Your task to perform on an android device: Go to sound settings Image 0: 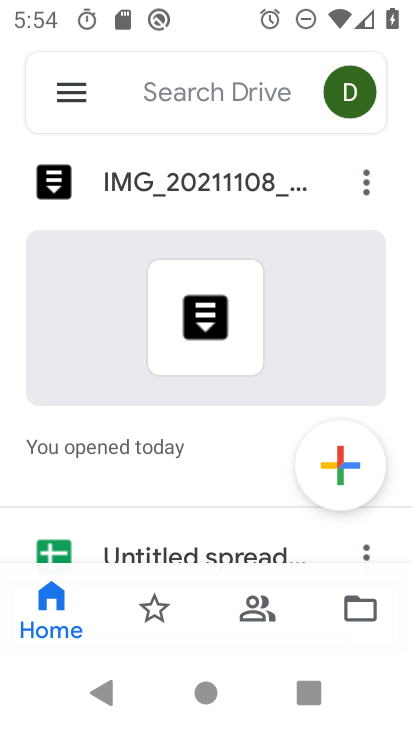
Step 0: type ""
Your task to perform on an android device: Go to sound settings Image 1: 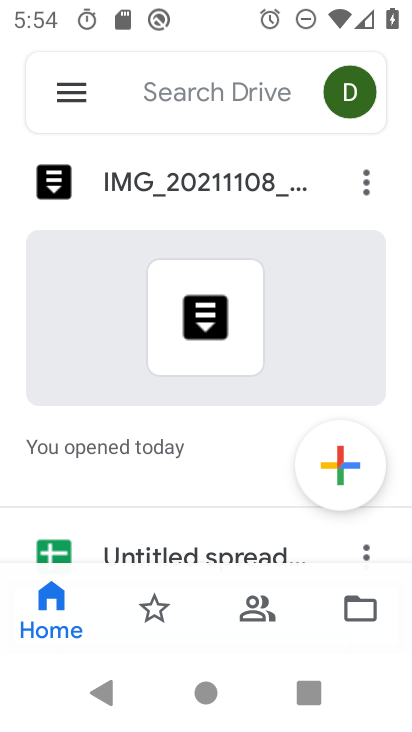
Step 1: press home button
Your task to perform on an android device: Go to sound settings Image 2: 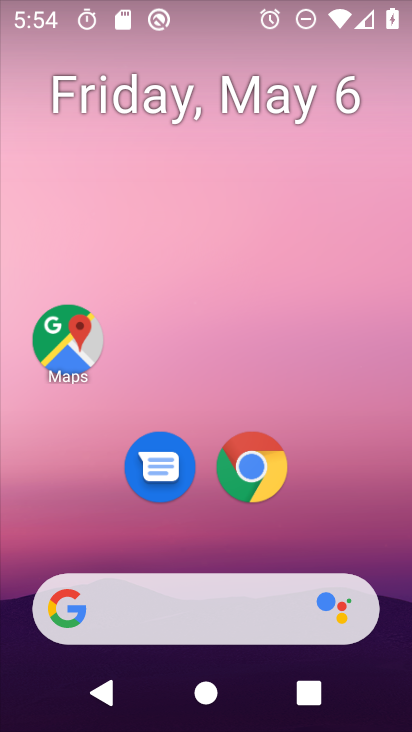
Step 2: drag from (282, 537) to (308, 35)
Your task to perform on an android device: Go to sound settings Image 3: 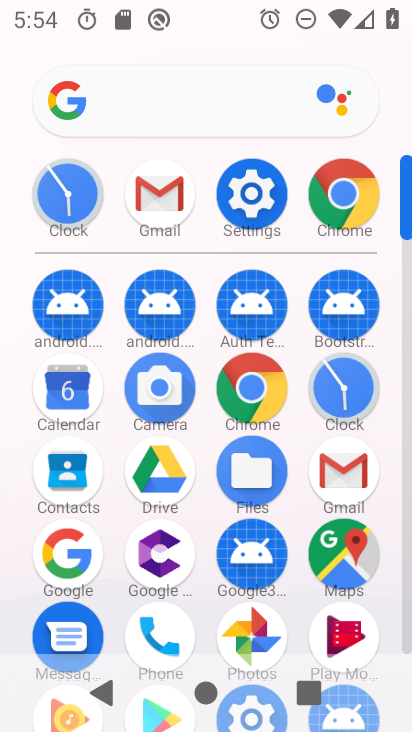
Step 3: click (361, 570)
Your task to perform on an android device: Go to sound settings Image 4: 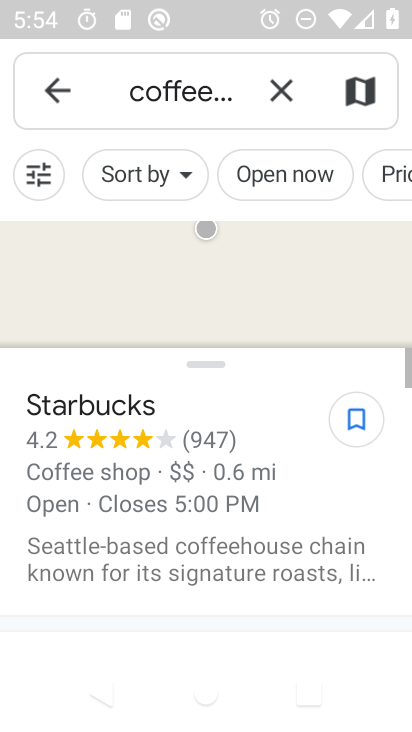
Step 4: press home button
Your task to perform on an android device: Go to sound settings Image 5: 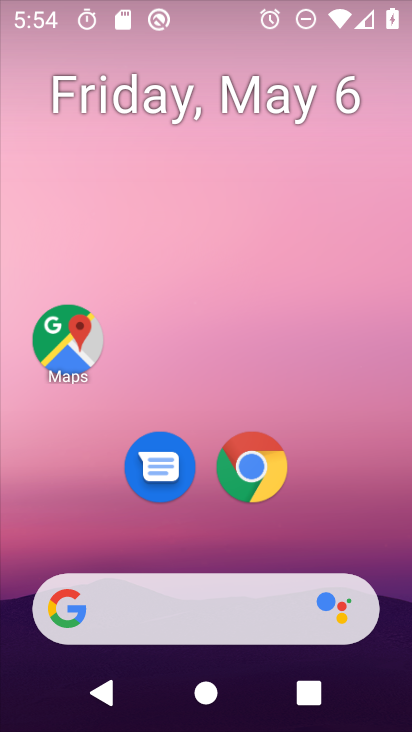
Step 5: drag from (304, 554) to (275, 129)
Your task to perform on an android device: Go to sound settings Image 6: 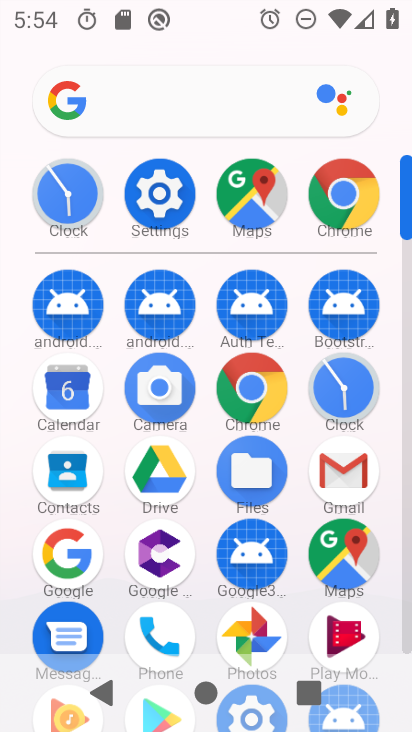
Step 6: click (146, 221)
Your task to perform on an android device: Go to sound settings Image 7: 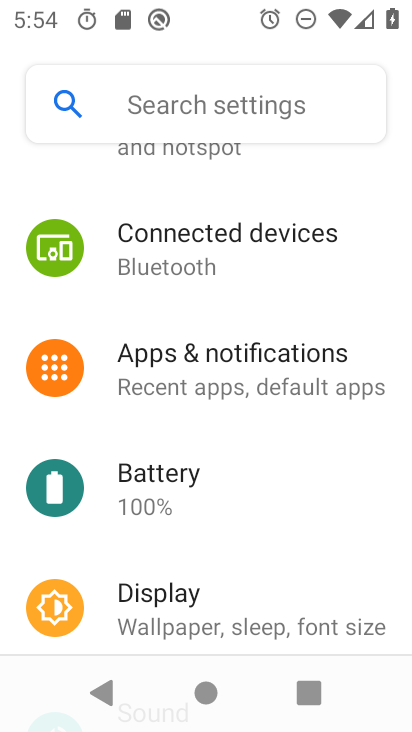
Step 7: drag from (176, 600) to (235, 250)
Your task to perform on an android device: Go to sound settings Image 8: 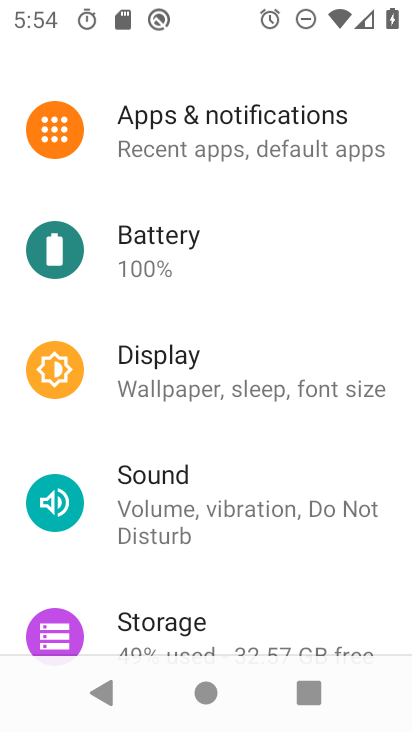
Step 8: click (156, 507)
Your task to perform on an android device: Go to sound settings Image 9: 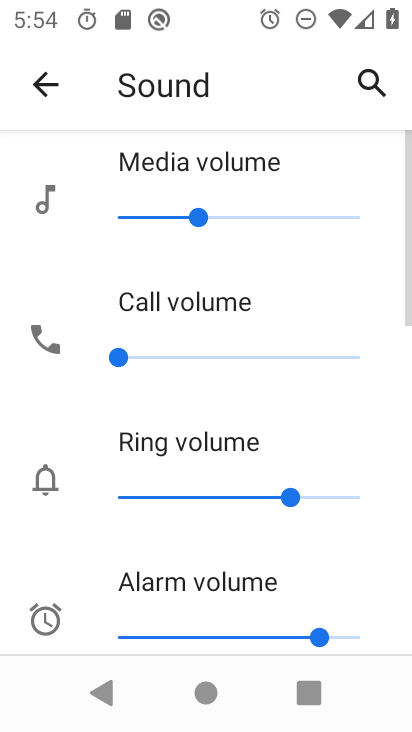
Step 9: task complete